Your task to perform on an android device: What's the news in Pakistan? Image 0: 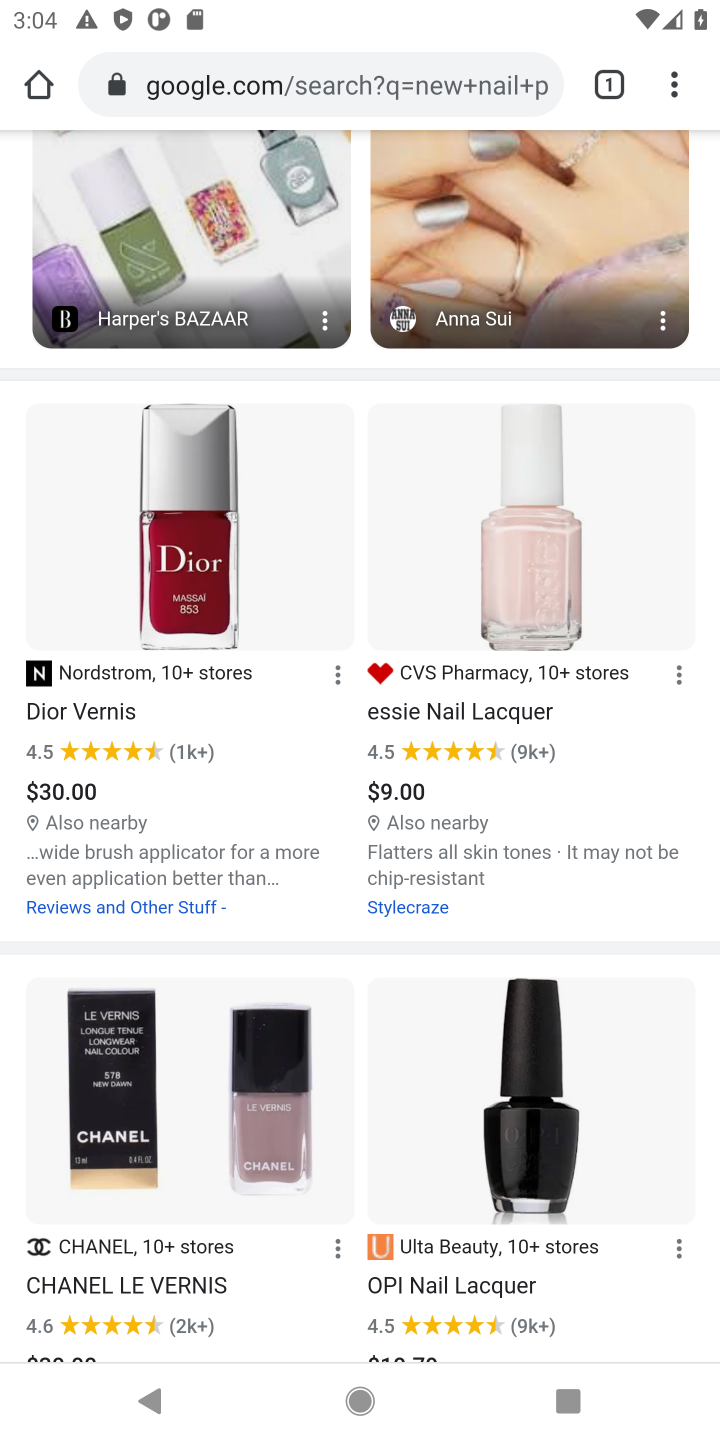
Step 0: press home button
Your task to perform on an android device: What's the news in Pakistan? Image 1: 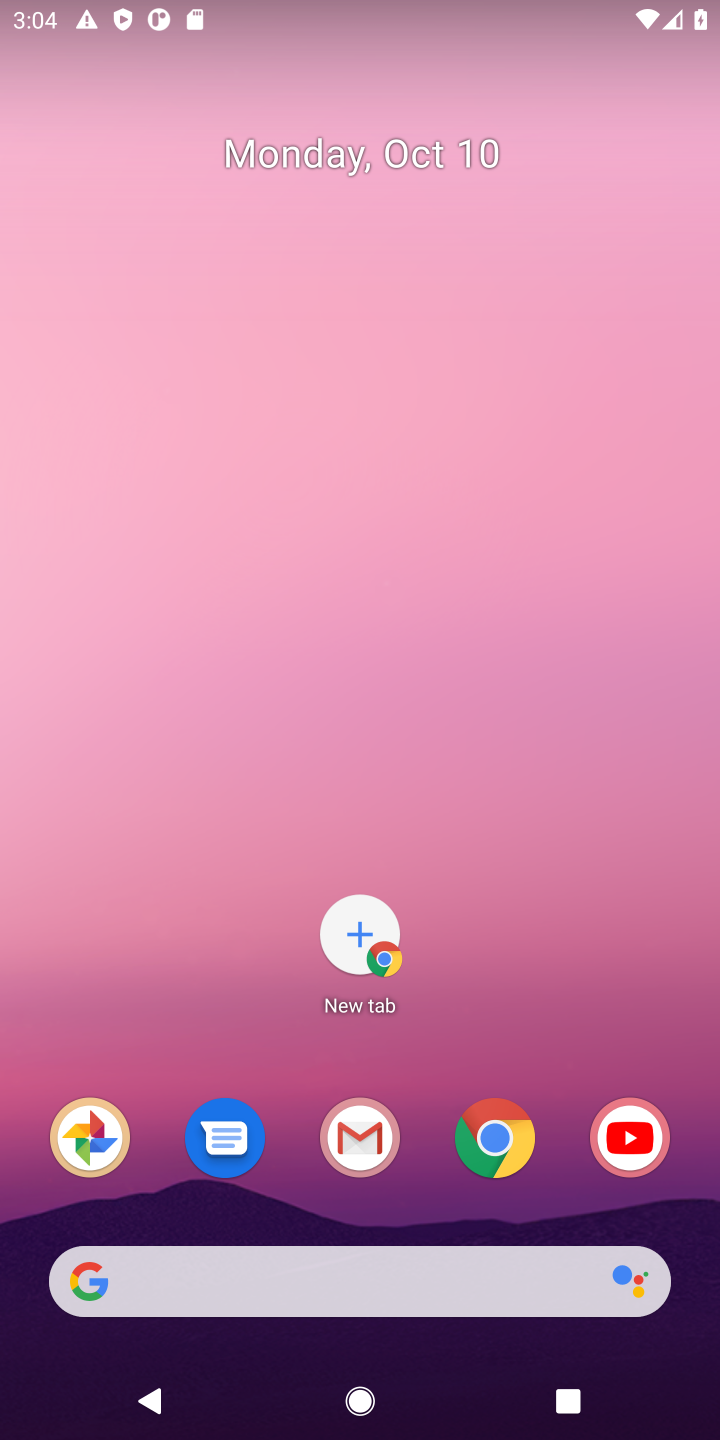
Step 1: click (492, 1143)
Your task to perform on an android device: What's the news in Pakistan? Image 2: 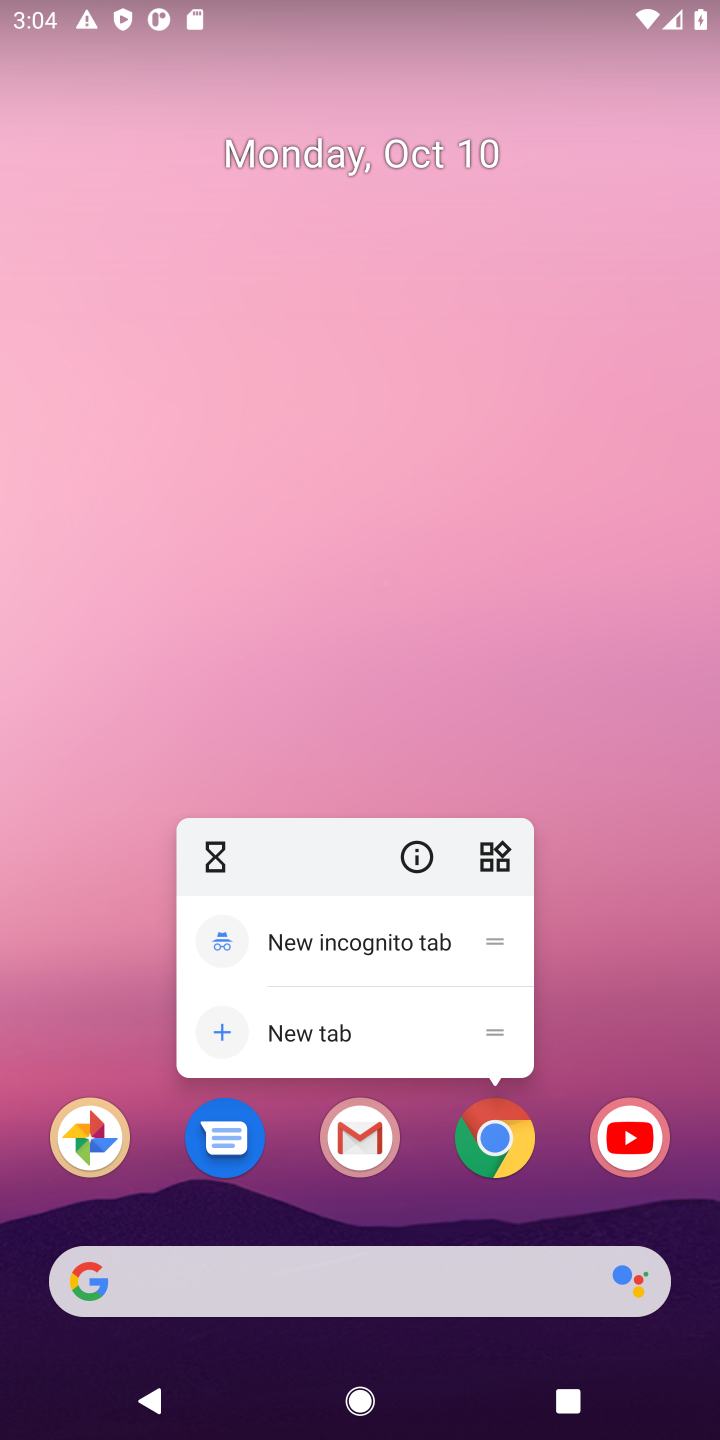
Step 2: click (315, 1036)
Your task to perform on an android device: What's the news in Pakistan? Image 3: 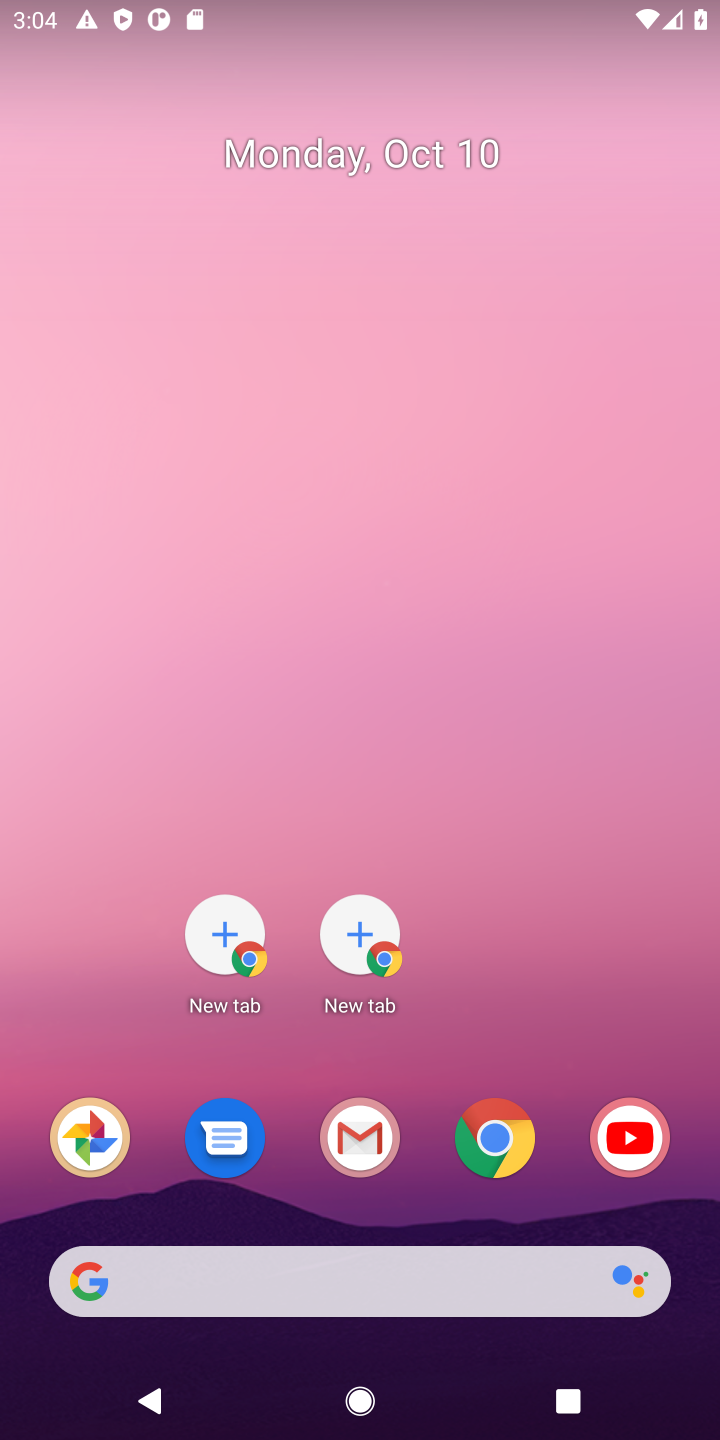
Step 3: click (385, 952)
Your task to perform on an android device: What's the news in Pakistan? Image 4: 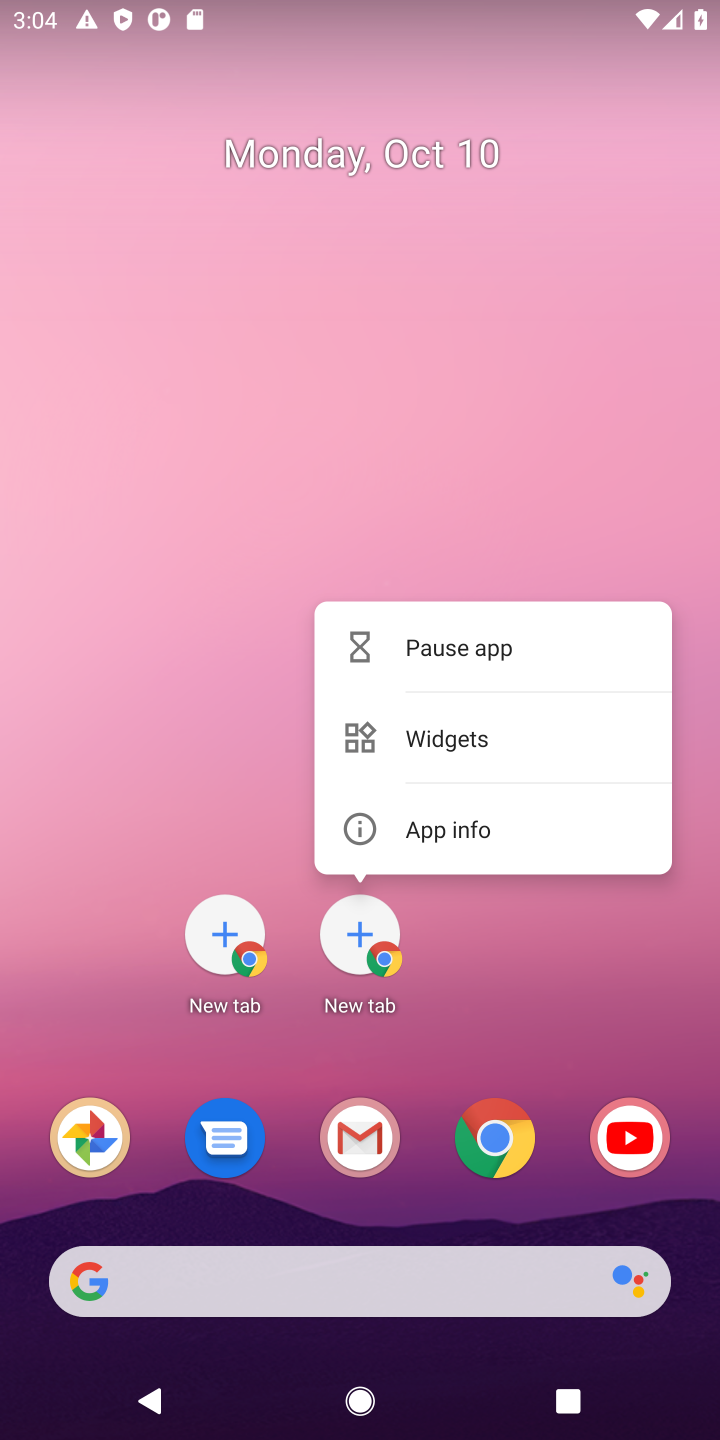
Step 4: click (500, 1141)
Your task to perform on an android device: What's the news in Pakistan? Image 5: 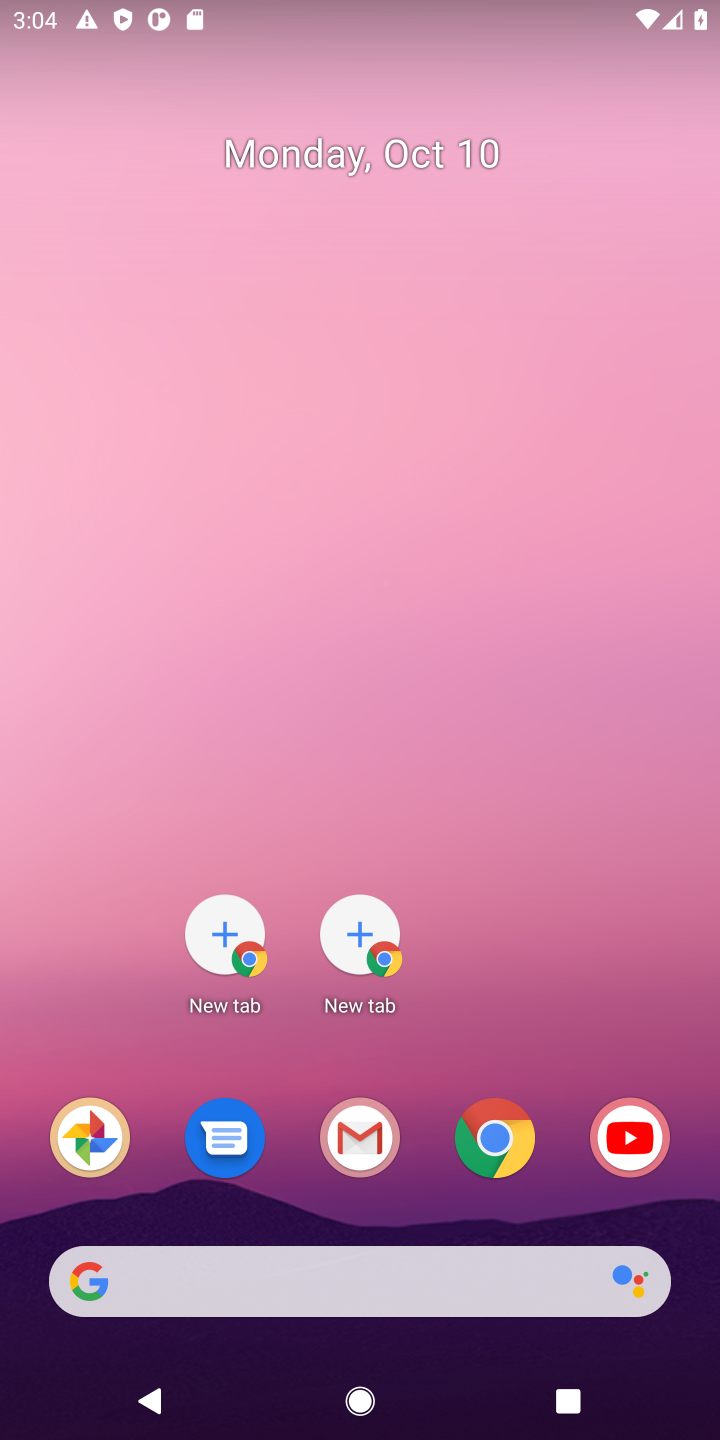
Step 5: click (500, 1134)
Your task to perform on an android device: What's the news in Pakistan? Image 6: 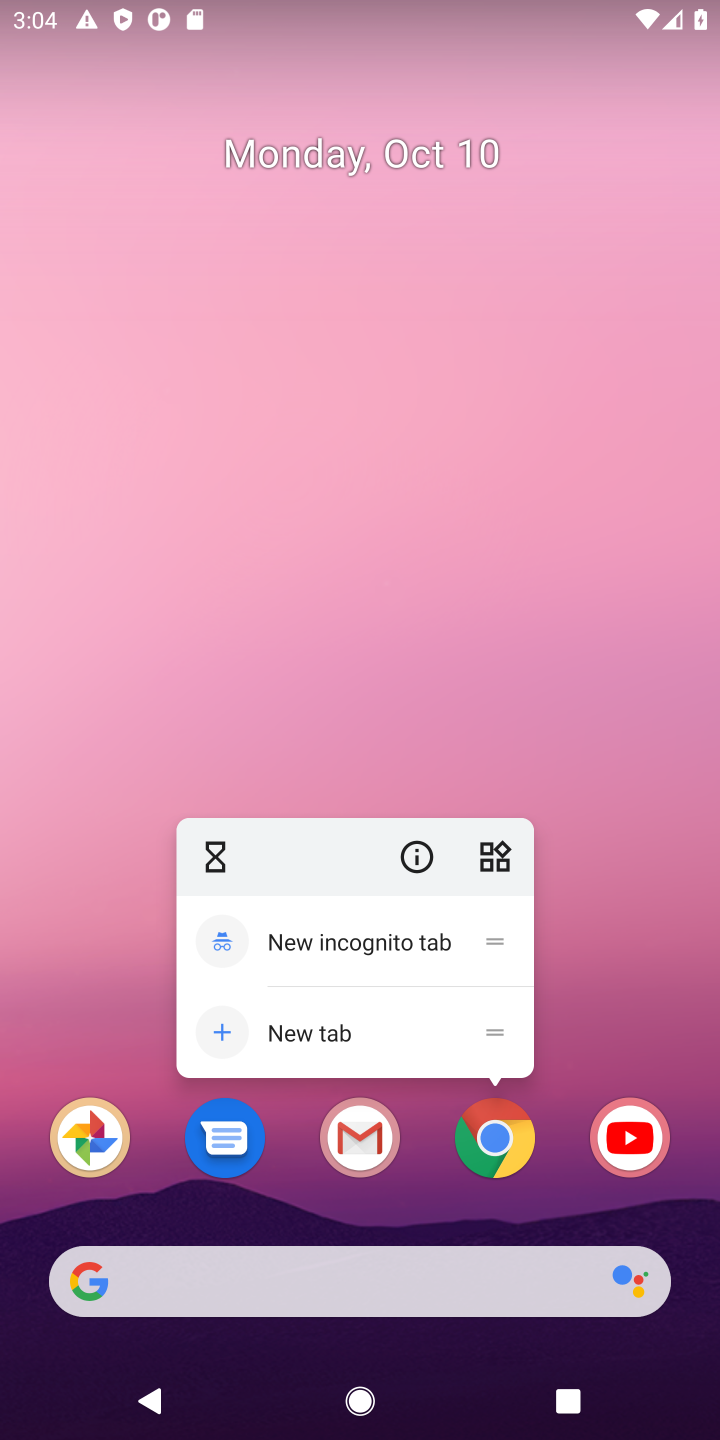
Step 6: click (498, 1141)
Your task to perform on an android device: What's the news in Pakistan? Image 7: 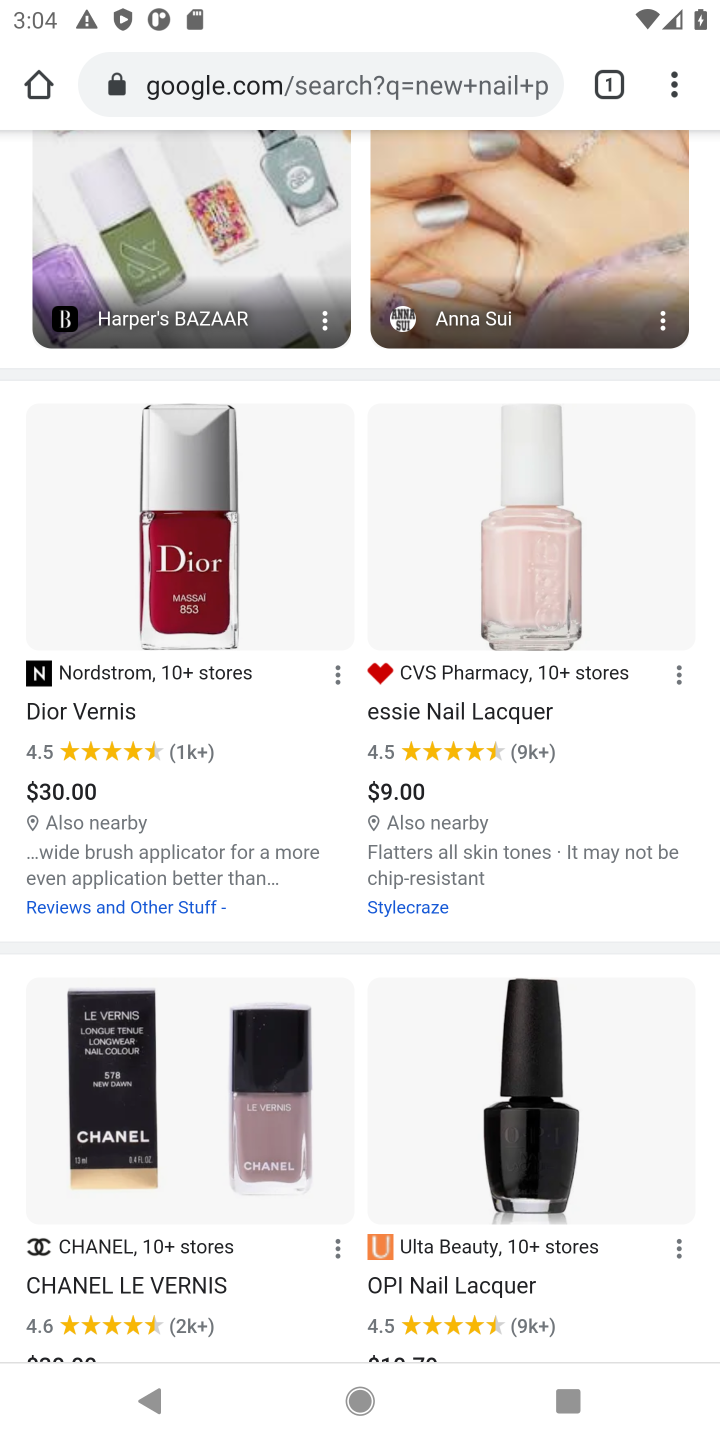
Step 7: click (418, 90)
Your task to perform on an android device: What's the news in Pakistan? Image 8: 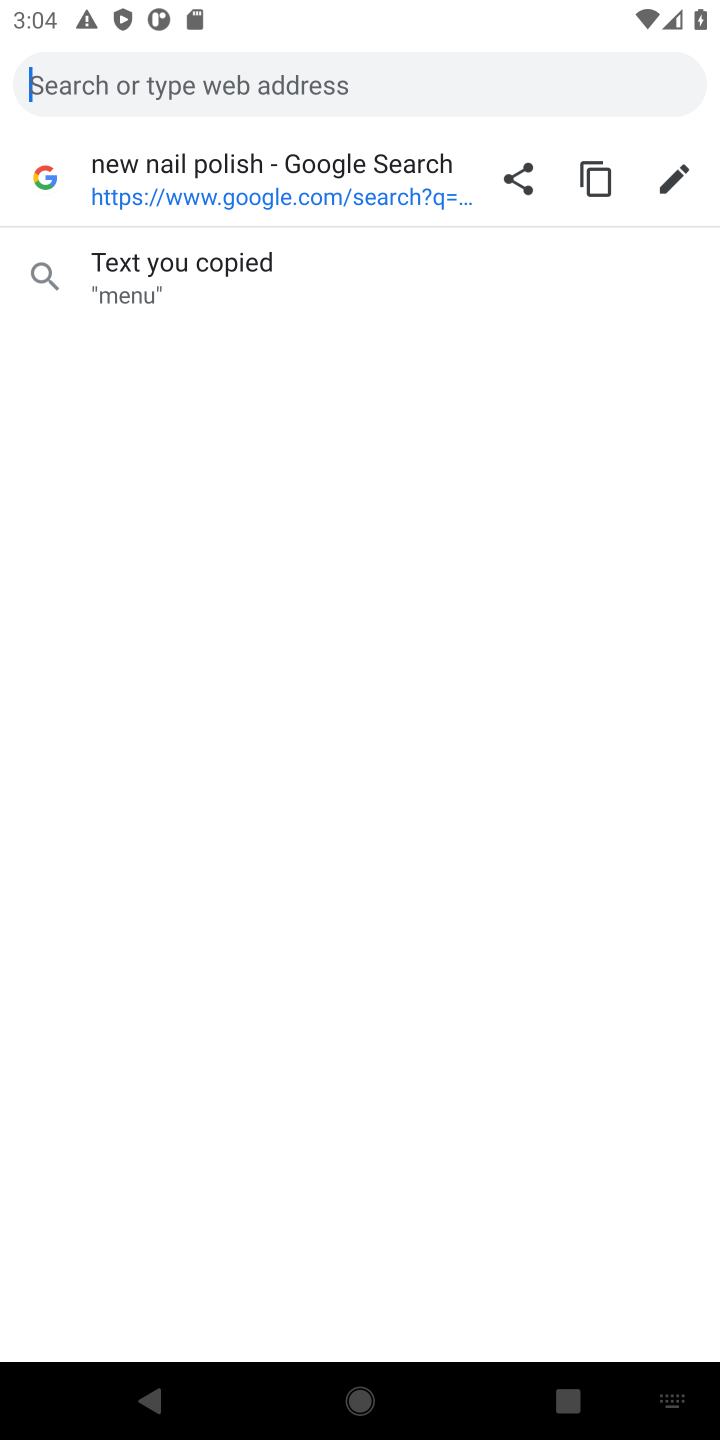
Step 8: type "news in pakistan"
Your task to perform on an android device: What's the news in Pakistan? Image 9: 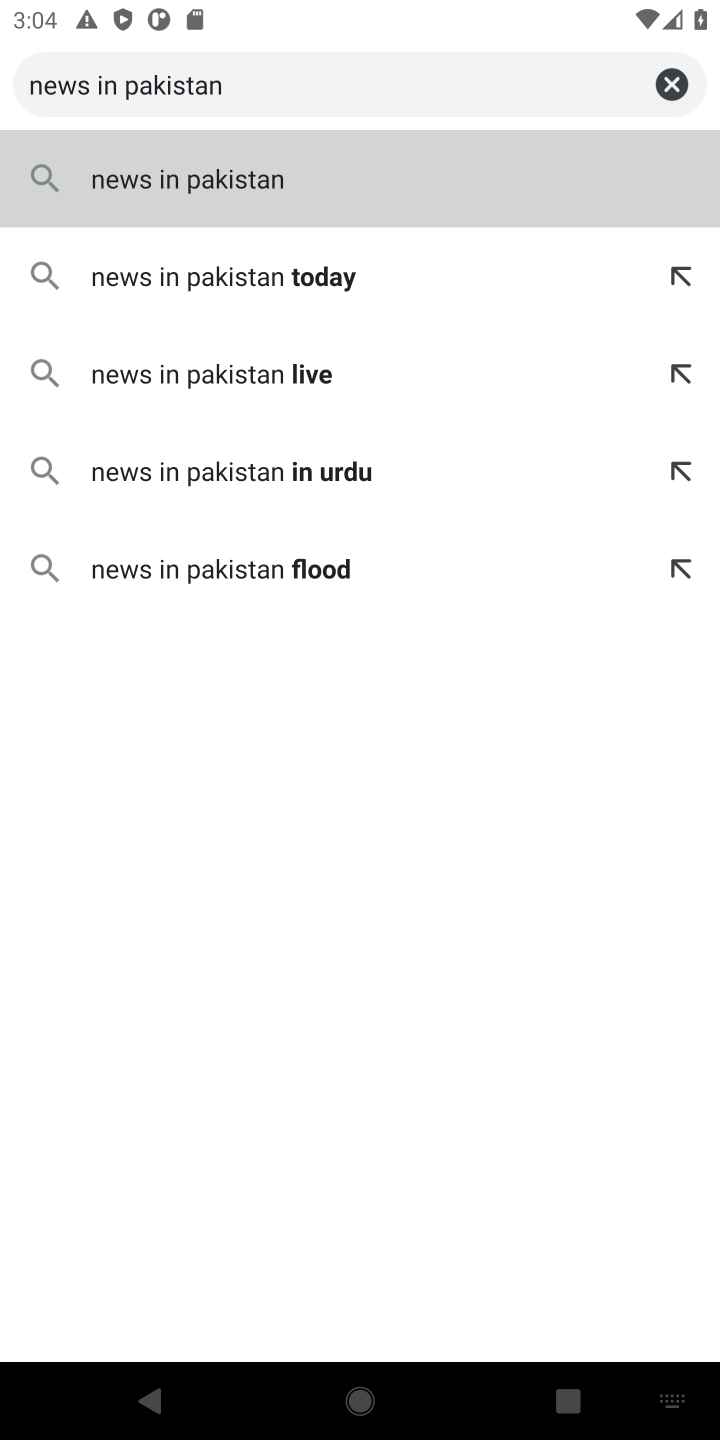
Step 9: press enter
Your task to perform on an android device: What's the news in Pakistan? Image 10: 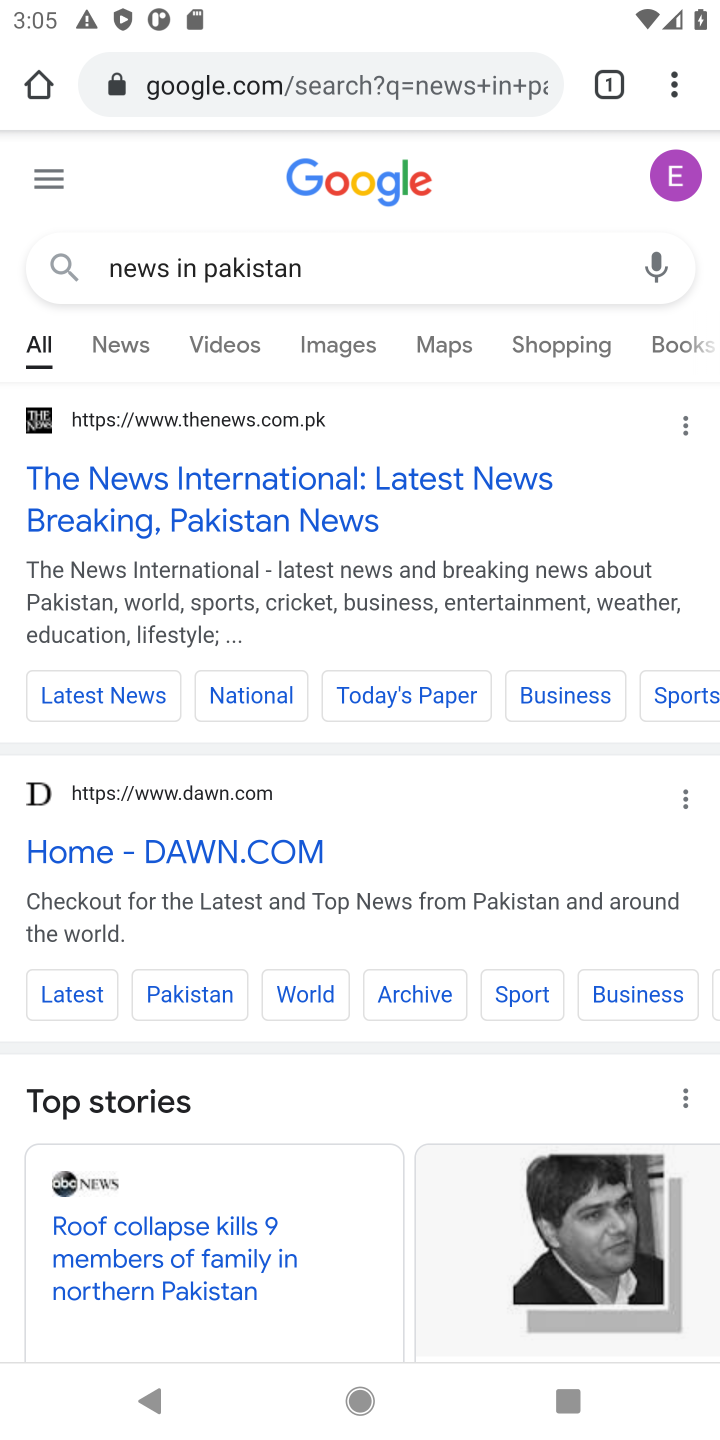
Step 10: click (128, 343)
Your task to perform on an android device: What's the news in Pakistan? Image 11: 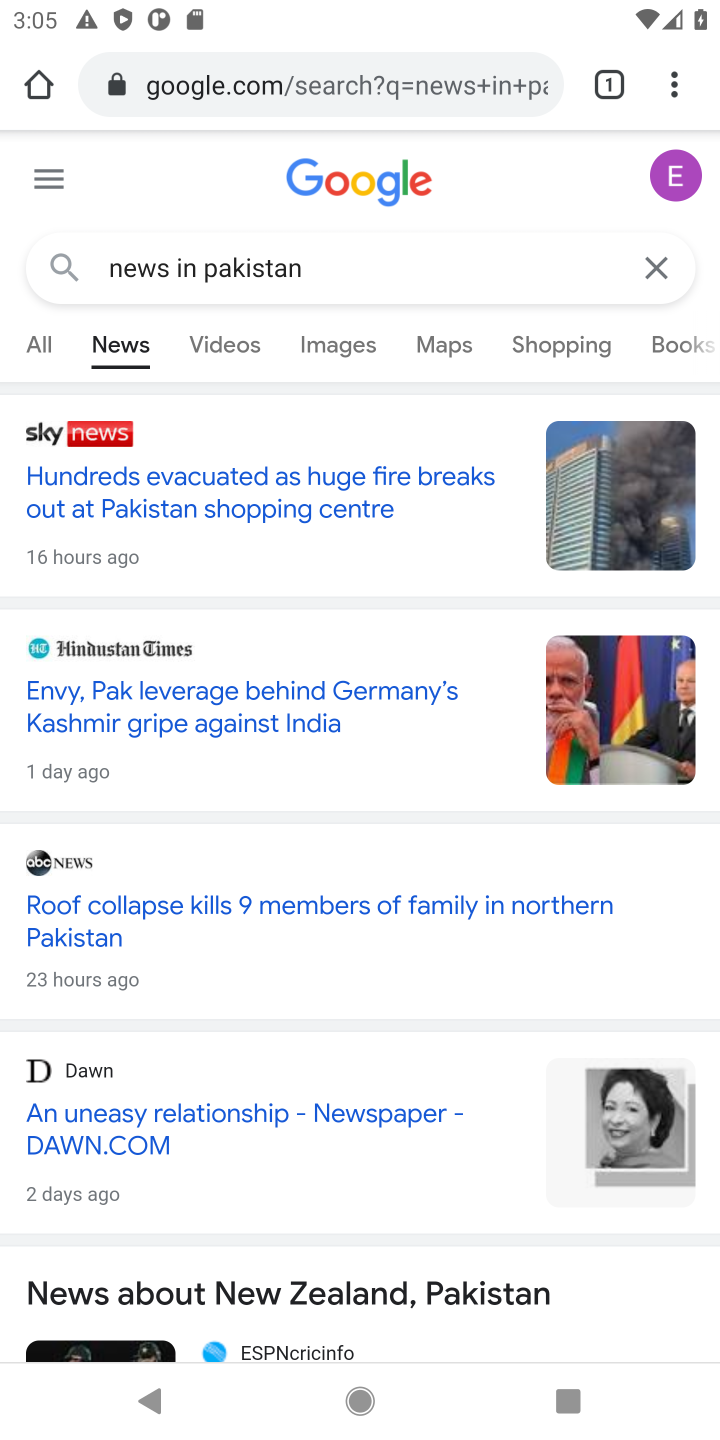
Step 11: task complete